Your task to perform on an android device: turn off javascript in the chrome app Image 0: 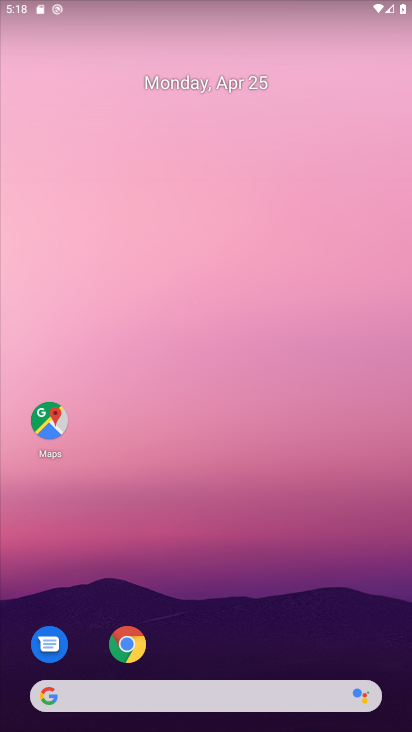
Step 0: click (133, 646)
Your task to perform on an android device: turn off javascript in the chrome app Image 1: 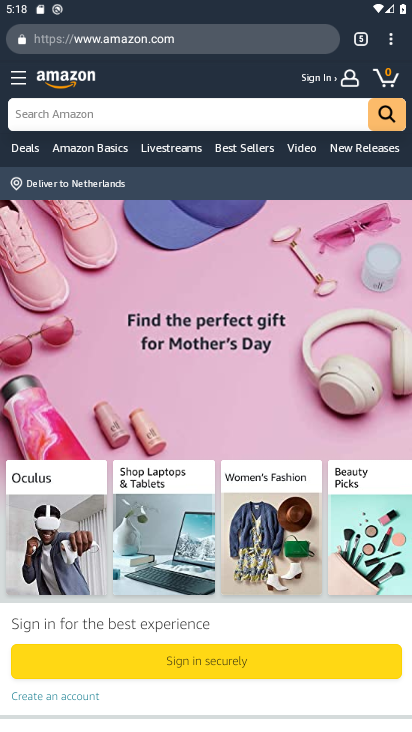
Step 1: click (384, 45)
Your task to perform on an android device: turn off javascript in the chrome app Image 2: 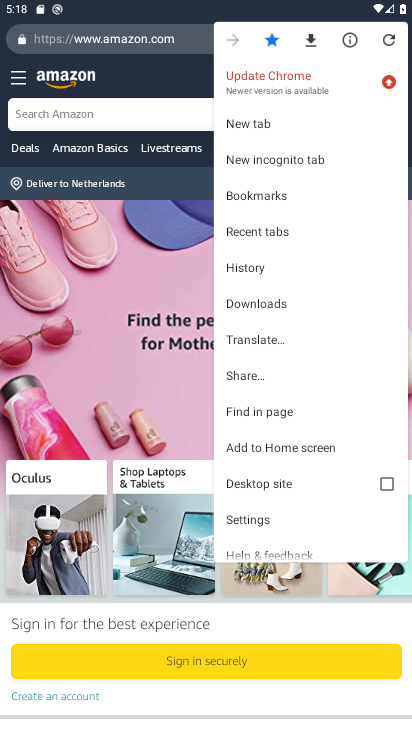
Step 2: click (253, 516)
Your task to perform on an android device: turn off javascript in the chrome app Image 3: 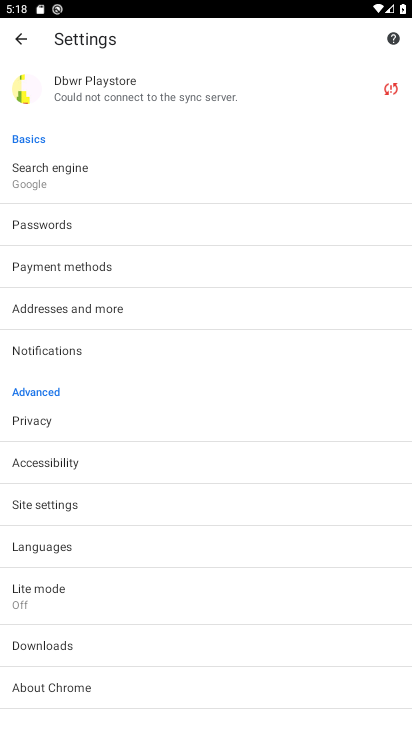
Step 3: click (80, 499)
Your task to perform on an android device: turn off javascript in the chrome app Image 4: 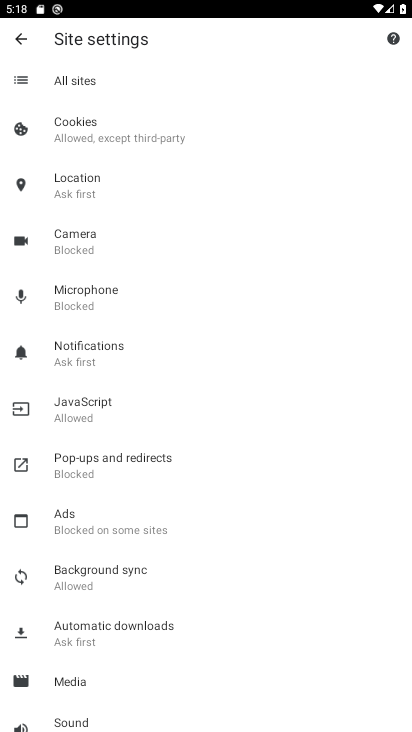
Step 4: click (100, 397)
Your task to perform on an android device: turn off javascript in the chrome app Image 5: 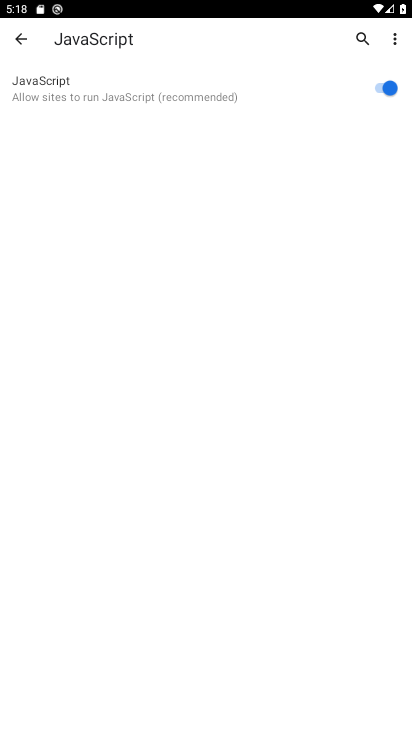
Step 5: click (384, 84)
Your task to perform on an android device: turn off javascript in the chrome app Image 6: 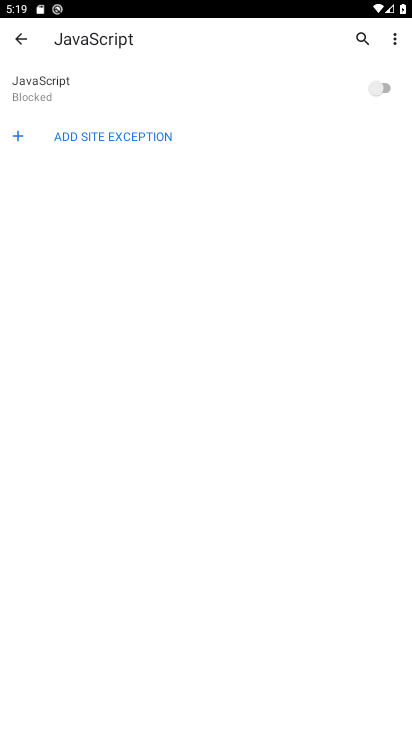
Step 6: task complete